Your task to perform on an android device: Search for Italian restaurants on Maps Image 0: 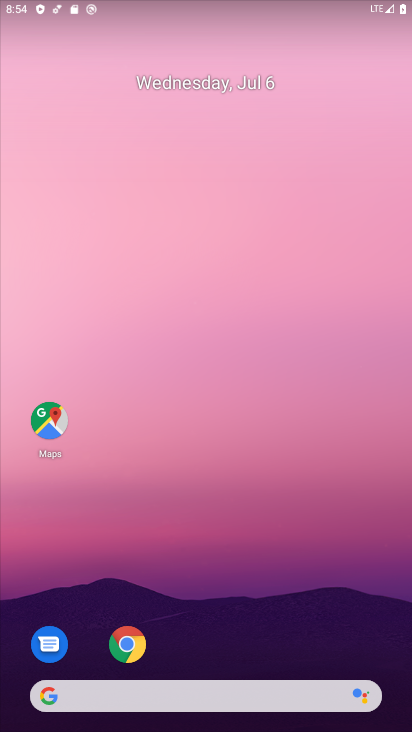
Step 0: drag from (181, 636) to (281, 126)
Your task to perform on an android device: Search for Italian restaurants on Maps Image 1: 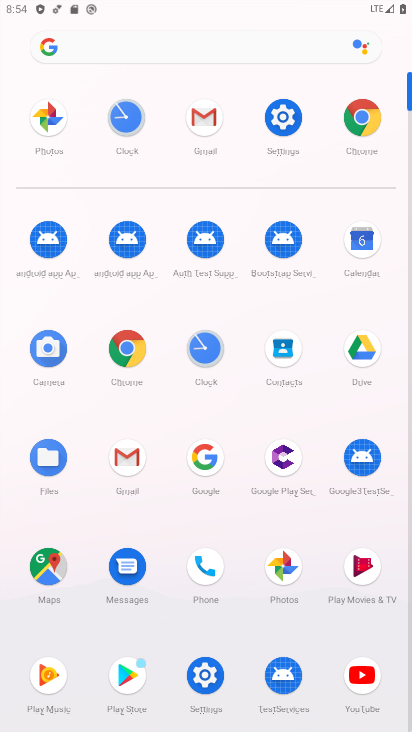
Step 1: click (47, 571)
Your task to perform on an android device: Search for Italian restaurants on Maps Image 2: 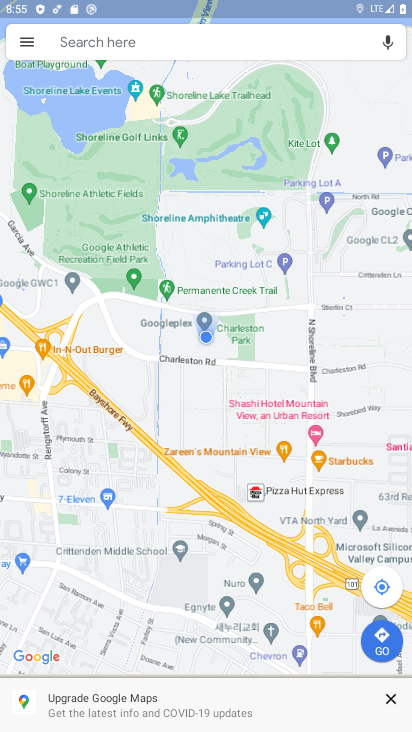
Step 2: click (161, 41)
Your task to perform on an android device: Search for Italian restaurants on Maps Image 3: 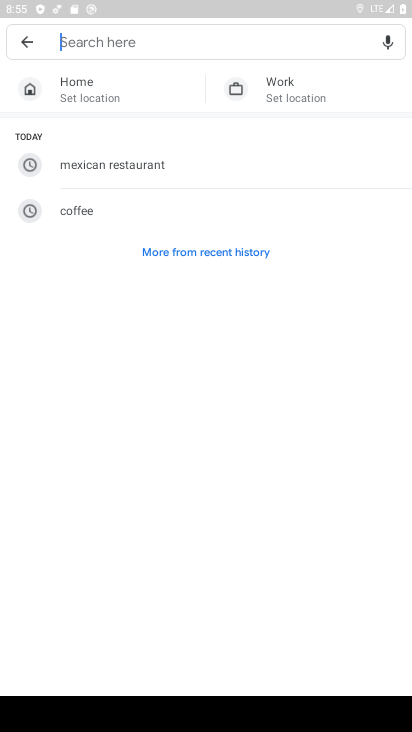
Step 3: type "Italian restaurants"
Your task to perform on an android device: Search for Italian restaurants on Maps Image 4: 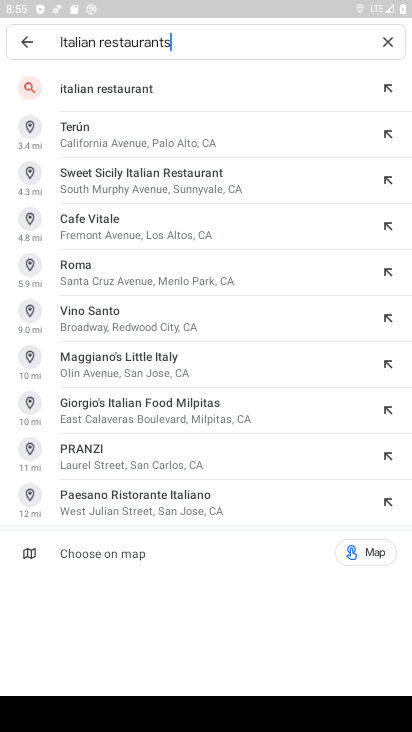
Step 4: click (145, 92)
Your task to perform on an android device: Search for Italian restaurants on Maps Image 5: 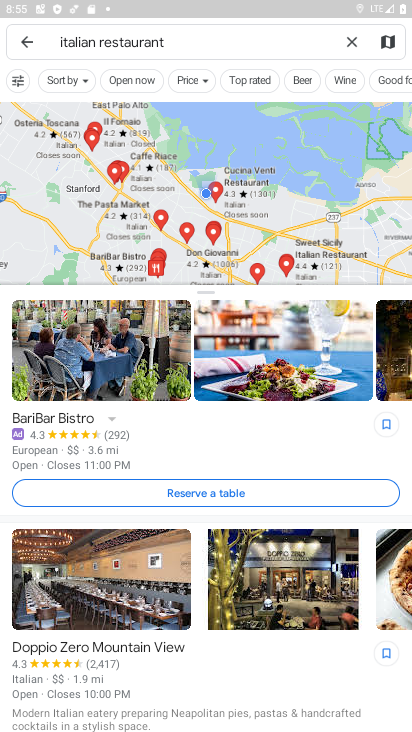
Step 5: task complete